Your task to perform on an android device: turn on location history Image 0: 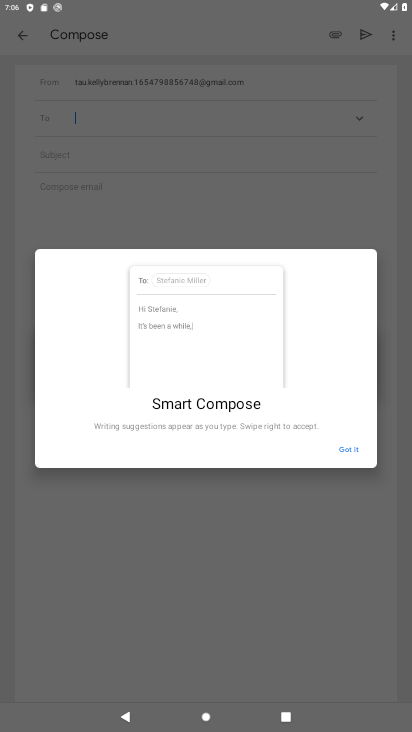
Step 0: press home button
Your task to perform on an android device: turn on location history Image 1: 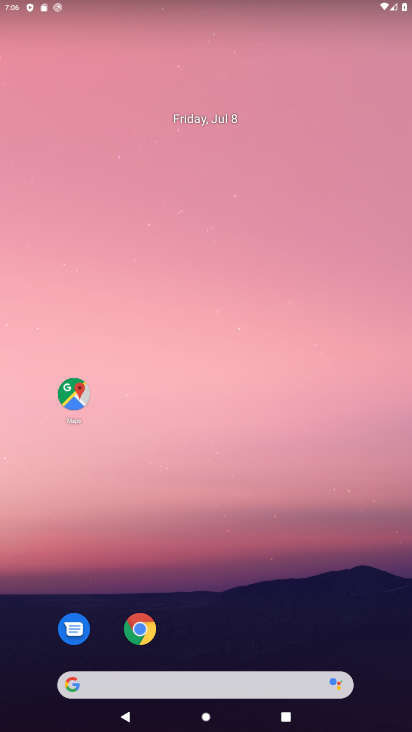
Step 1: click (291, 586)
Your task to perform on an android device: turn on location history Image 2: 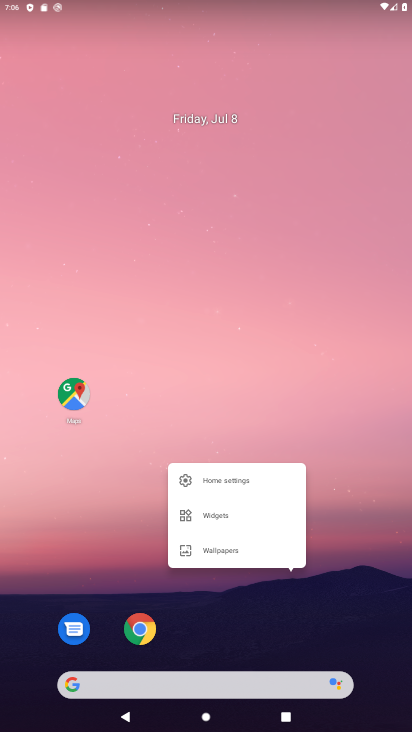
Step 2: click (132, 539)
Your task to perform on an android device: turn on location history Image 3: 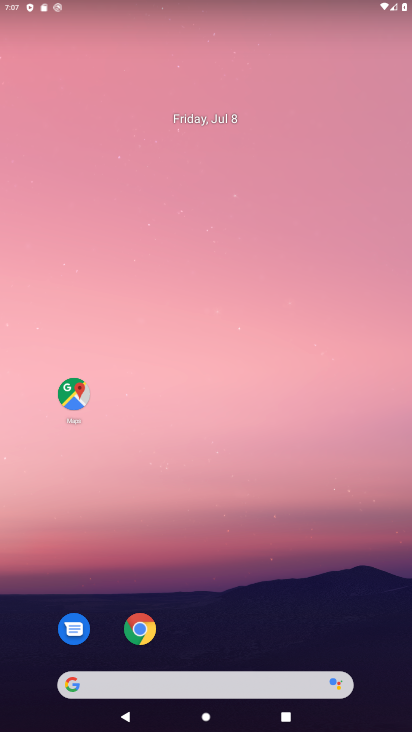
Step 3: click (70, 391)
Your task to perform on an android device: turn on location history Image 4: 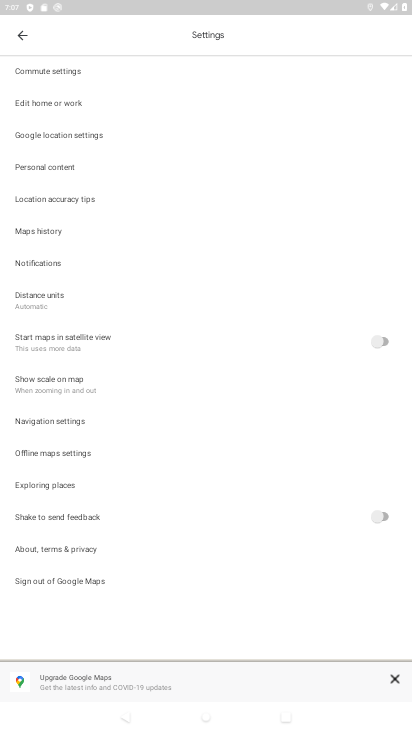
Step 4: click (26, 31)
Your task to perform on an android device: turn on location history Image 5: 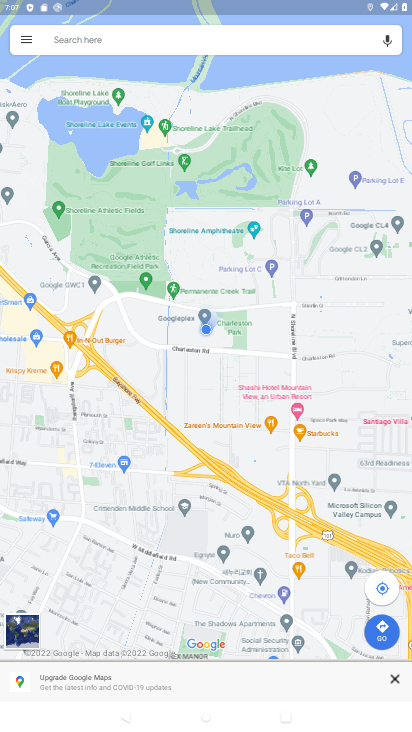
Step 5: click (27, 42)
Your task to perform on an android device: turn on location history Image 6: 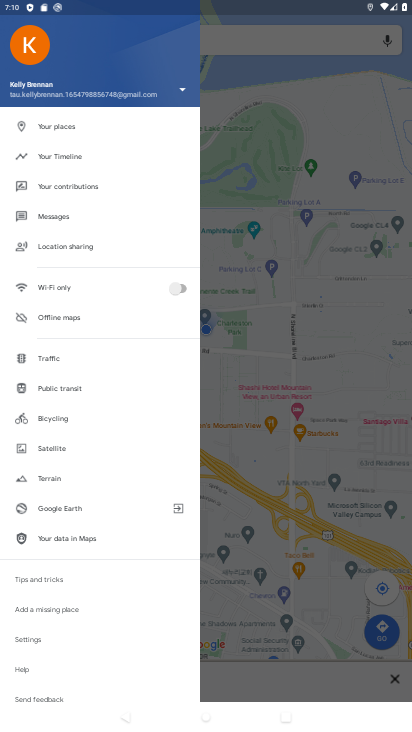
Step 6: click (54, 162)
Your task to perform on an android device: turn on location history Image 7: 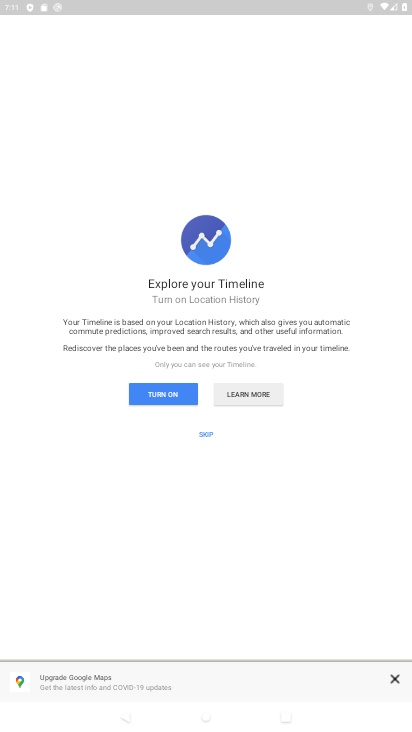
Step 7: click (185, 393)
Your task to perform on an android device: turn on location history Image 8: 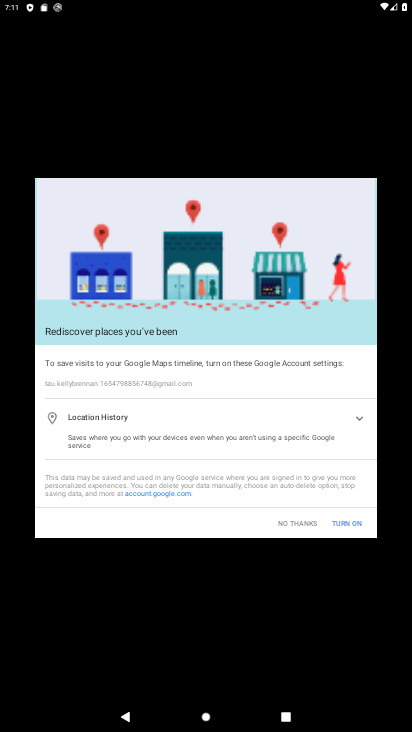
Step 8: click (358, 520)
Your task to perform on an android device: turn on location history Image 9: 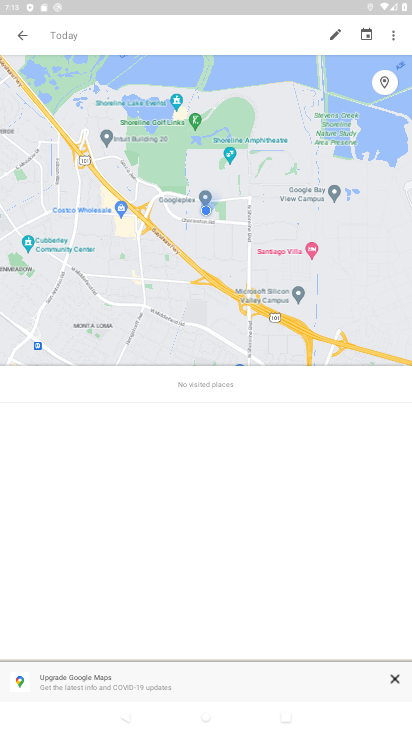
Step 9: task complete